Your task to perform on an android device: Open Google Chrome and open the bookmarks view Image 0: 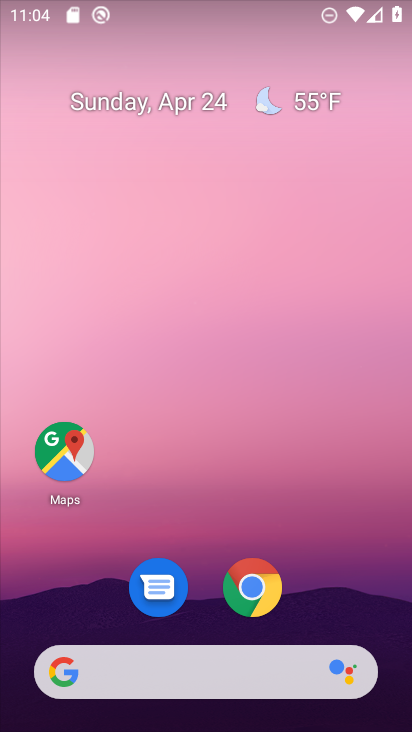
Step 0: drag from (339, 610) to (360, 72)
Your task to perform on an android device: Open Google Chrome and open the bookmarks view Image 1: 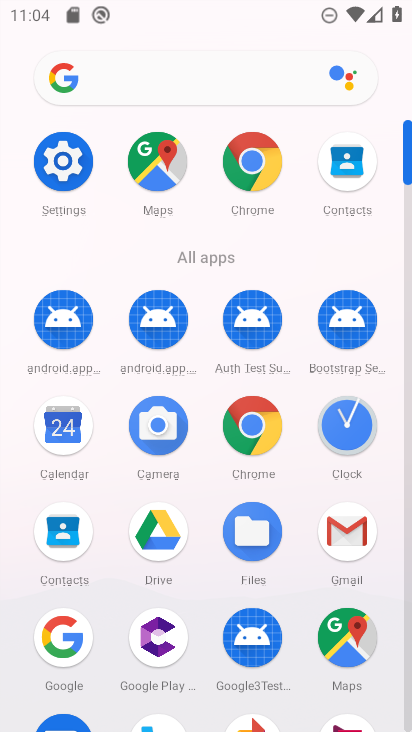
Step 1: click (263, 425)
Your task to perform on an android device: Open Google Chrome and open the bookmarks view Image 2: 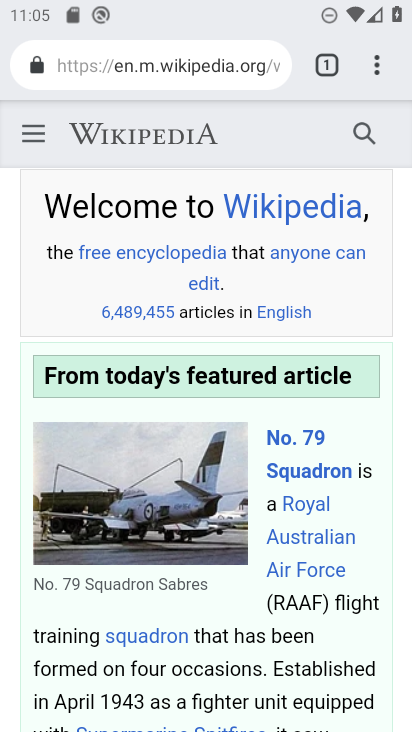
Step 2: drag from (380, 56) to (181, 319)
Your task to perform on an android device: Open Google Chrome and open the bookmarks view Image 3: 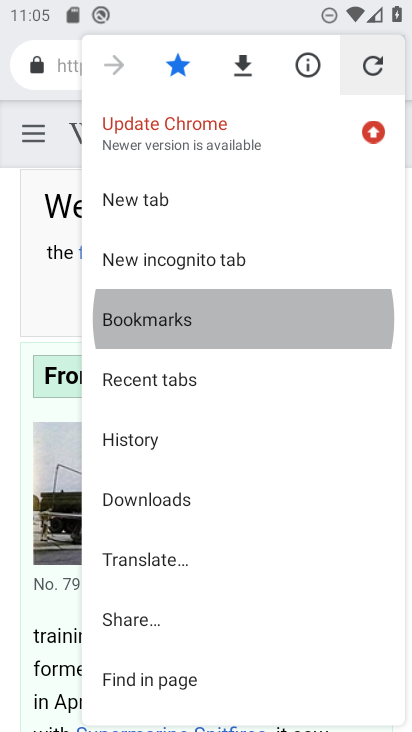
Step 3: click (166, 318)
Your task to perform on an android device: Open Google Chrome and open the bookmarks view Image 4: 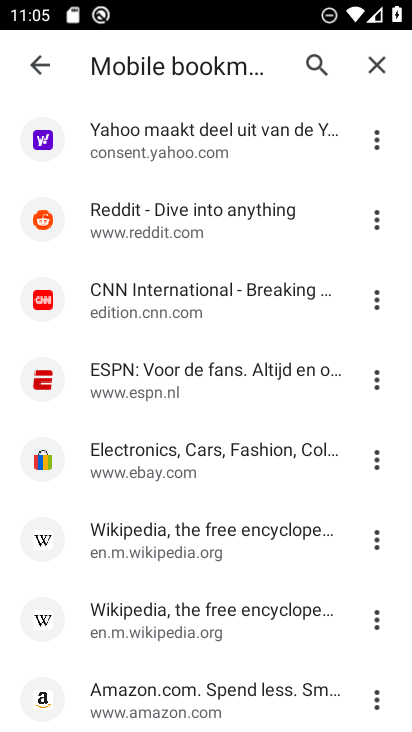
Step 4: task complete